Your task to perform on an android device: Open Yahoo.com Image 0: 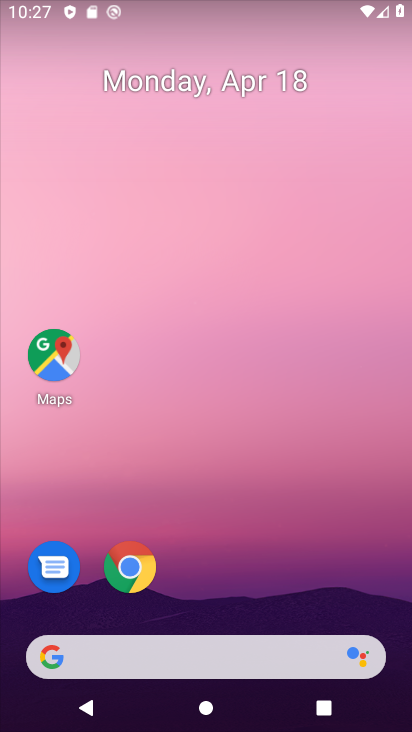
Step 0: click (145, 569)
Your task to perform on an android device: Open Yahoo.com Image 1: 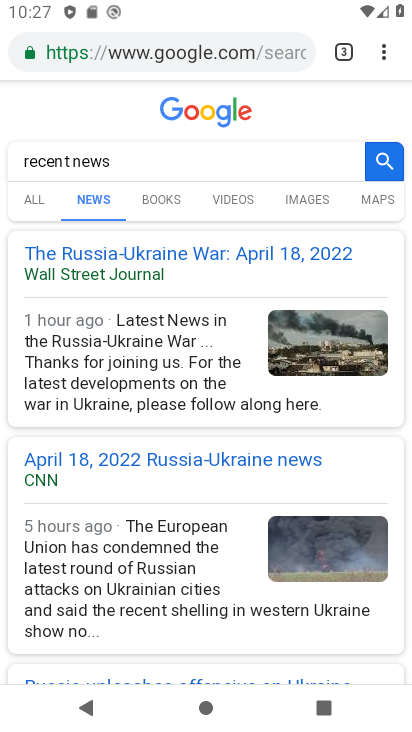
Step 1: click (337, 50)
Your task to perform on an android device: Open Yahoo.com Image 2: 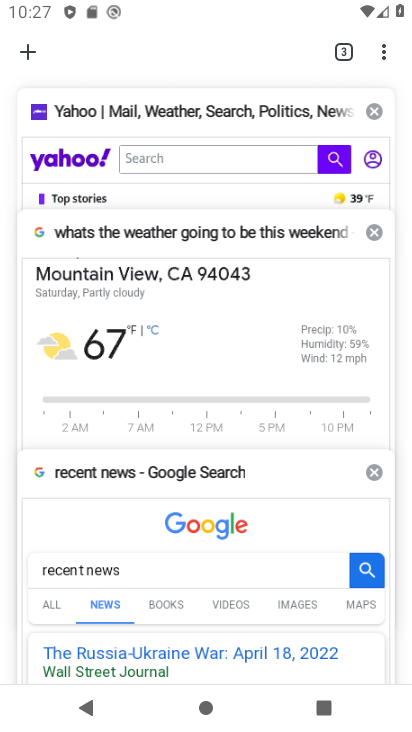
Step 2: click (92, 135)
Your task to perform on an android device: Open Yahoo.com Image 3: 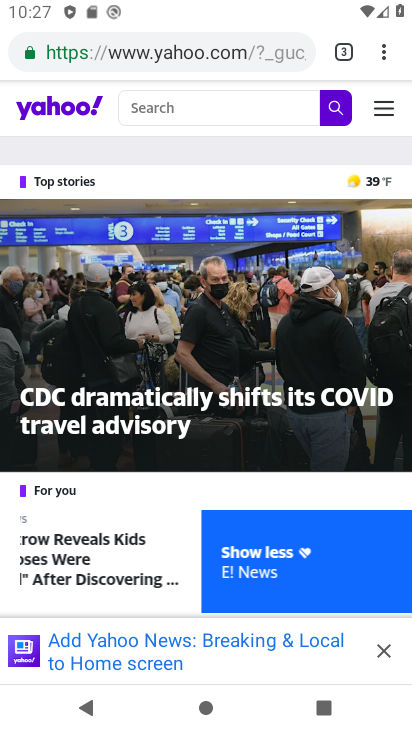
Step 3: task complete